Your task to perform on an android device: move an email to a new category in the gmail app Image 0: 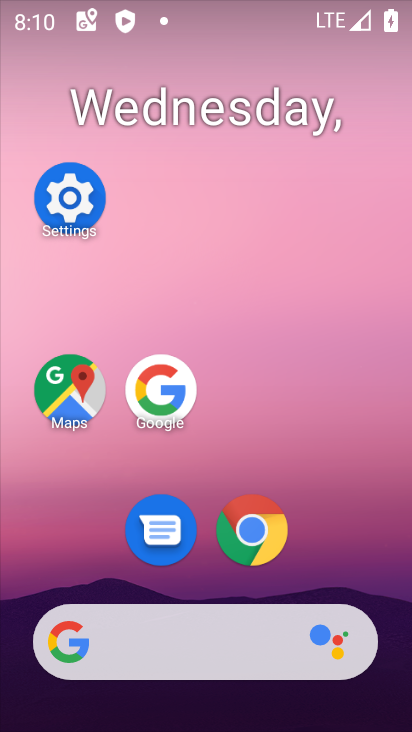
Step 0: drag from (308, 514) to (326, 148)
Your task to perform on an android device: move an email to a new category in the gmail app Image 1: 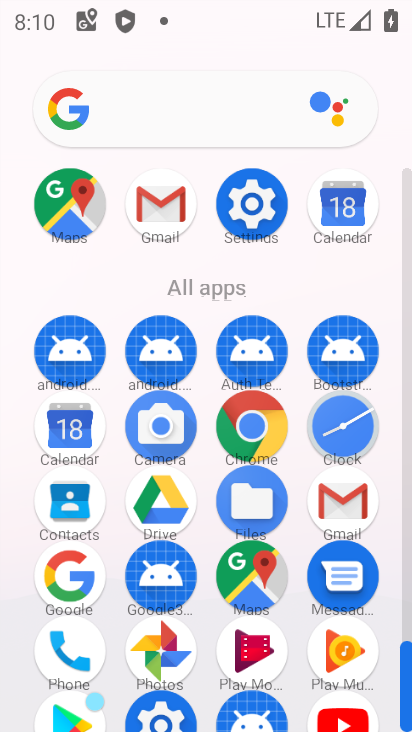
Step 1: drag from (341, 486) to (229, 353)
Your task to perform on an android device: move an email to a new category in the gmail app Image 2: 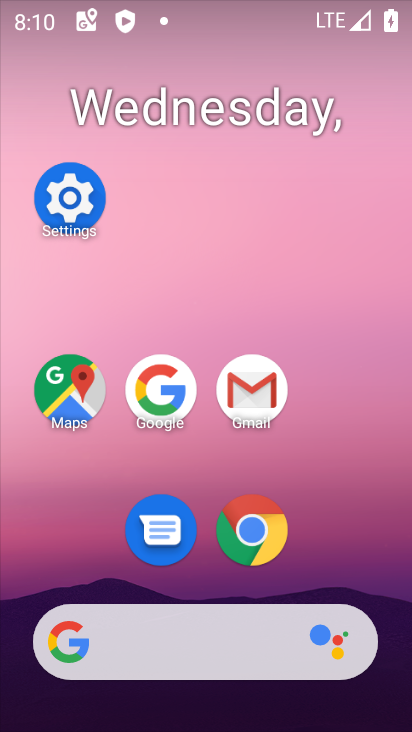
Step 2: click (242, 382)
Your task to perform on an android device: move an email to a new category in the gmail app Image 3: 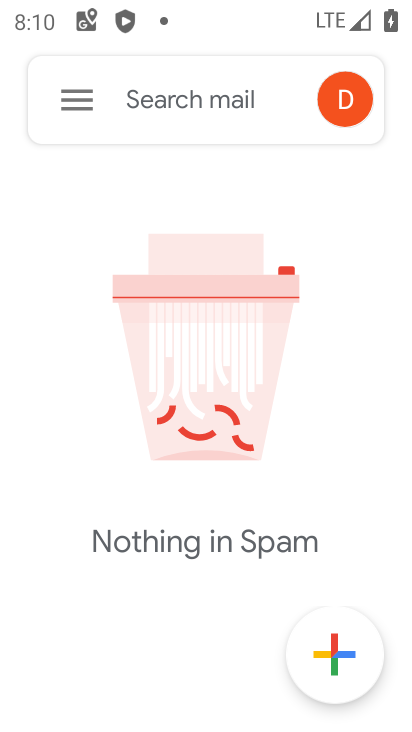
Step 3: click (83, 95)
Your task to perform on an android device: move an email to a new category in the gmail app Image 4: 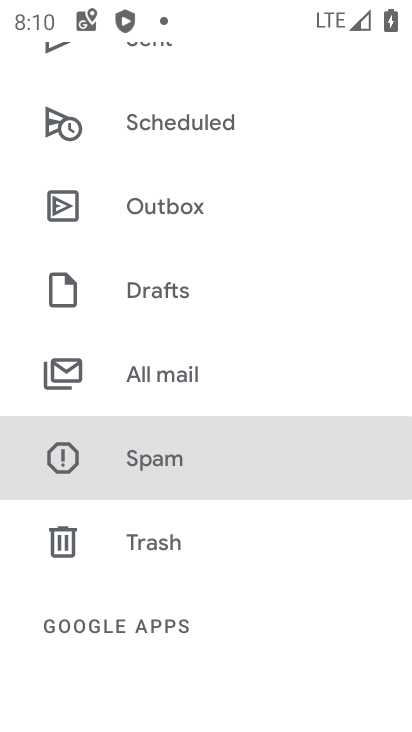
Step 4: click (192, 367)
Your task to perform on an android device: move an email to a new category in the gmail app Image 5: 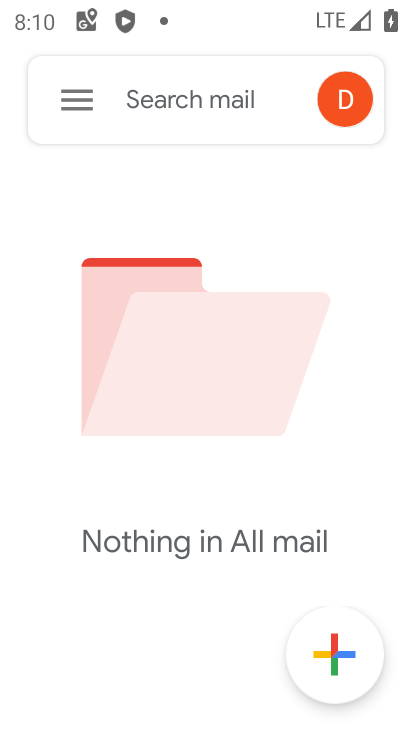
Step 5: task complete